Your task to perform on an android device: change your default location settings in chrome Image 0: 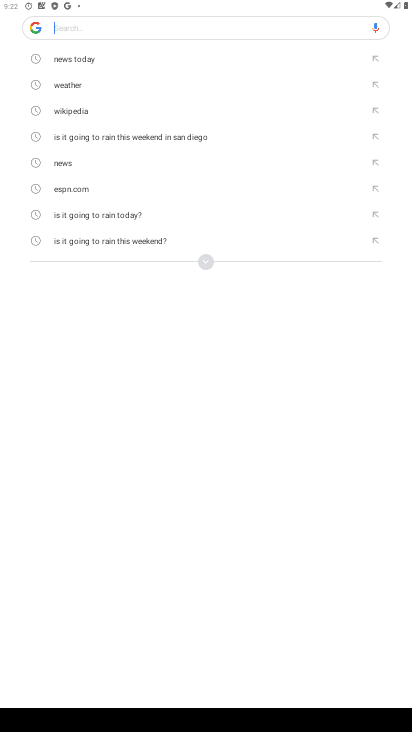
Step 0: press home button
Your task to perform on an android device: change your default location settings in chrome Image 1: 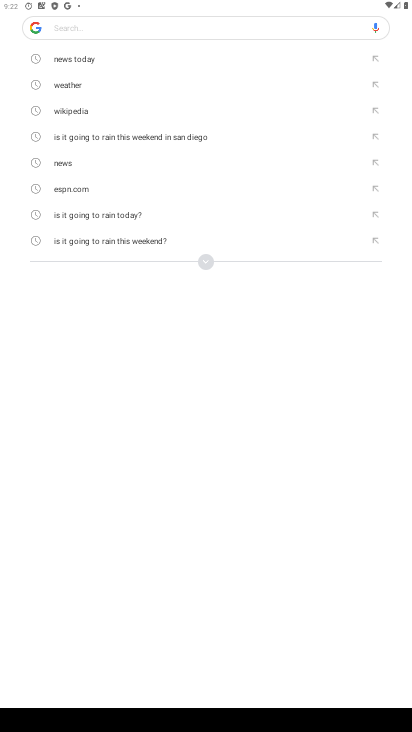
Step 1: press home button
Your task to perform on an android device: change your default location settings in chrome Image 2: 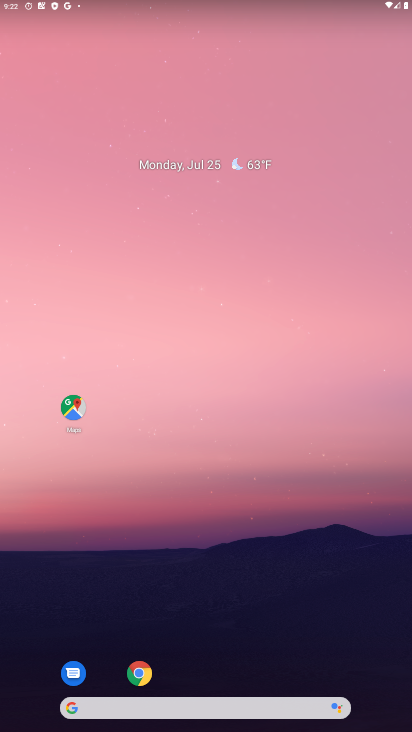
Step 2: click (141, 676)
Your task to perform on an android device: change your default location settings in chrome Image 3: 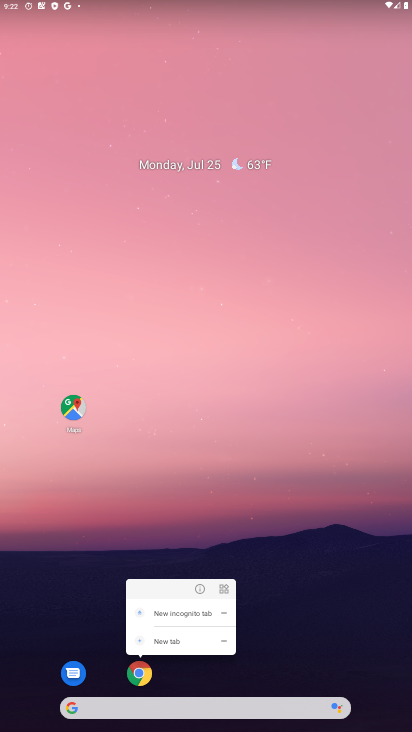
Step 3: click (196, 587)
Your task to perform on an android device: change your default location settings in chrome Image 4: 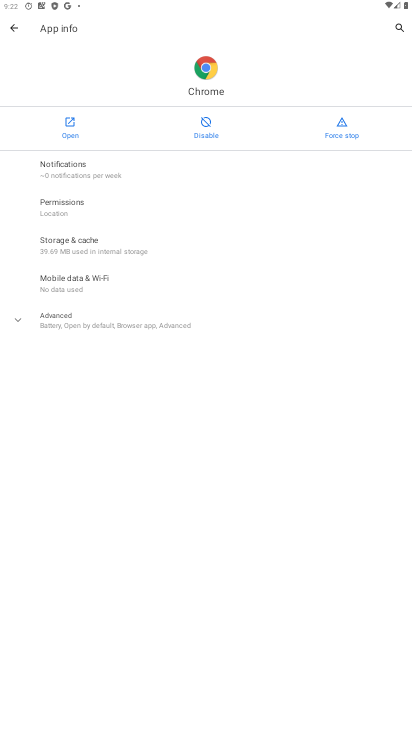
Step 4: click (71, 122)
Your task to perform on an android device: change your default location settings in chrome Image 5: 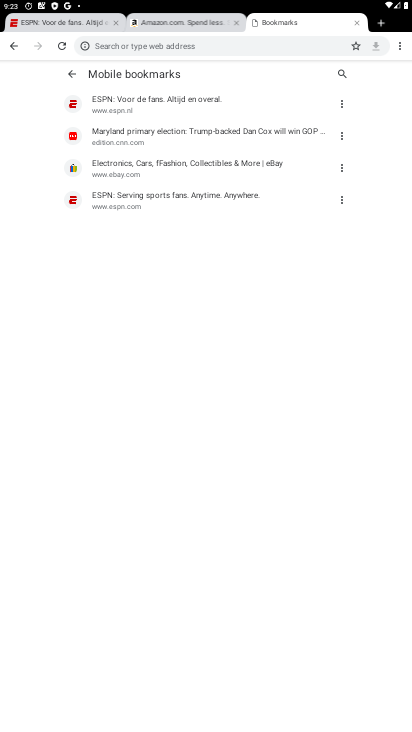
Step 5: click (176, 44)
Your task to perform on an android device: change your default location settings in chrome Image 6: 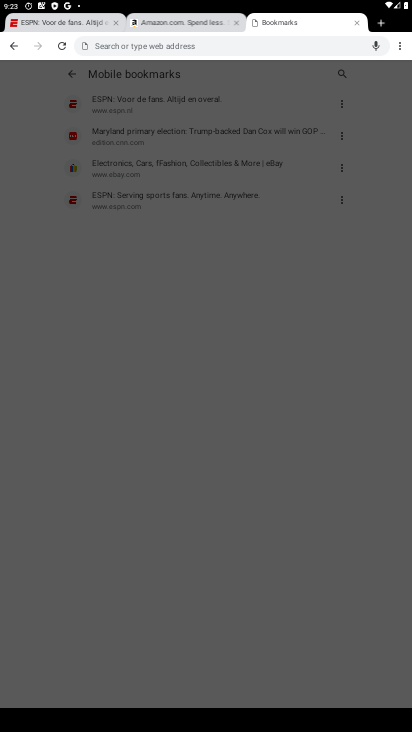
Step 6: click (152, 46)
Your task to perform on an android device: change your default location settings in chrome Image 7: 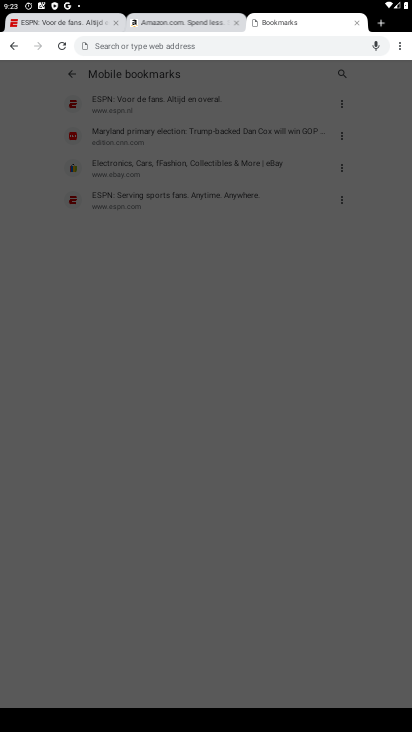
Step 7: drag from (403, 45) to (305, 214)
Your task to perform on an android device: change your default location settings in chrome Image 8: 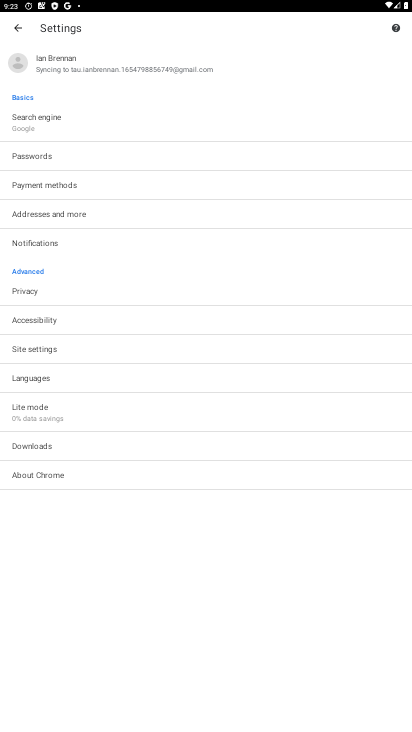
Step 8: click (69, 345)
Your task to perform on an android device: change your default location settings in chrome Image 9: 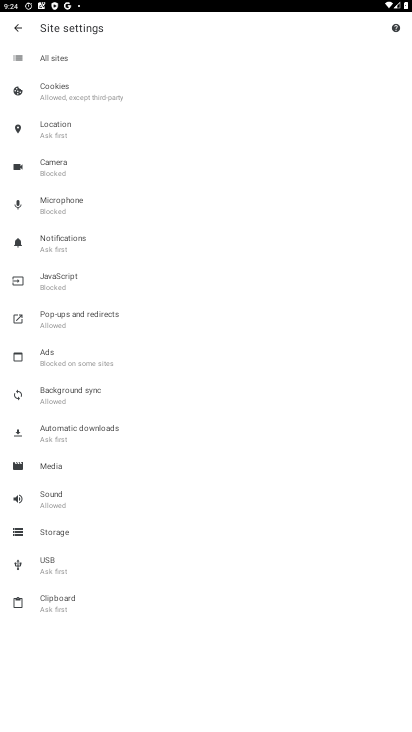
Step 9: click (128, 134)
Your task to perform on an android device: change your default location settings in chrome Image 10: 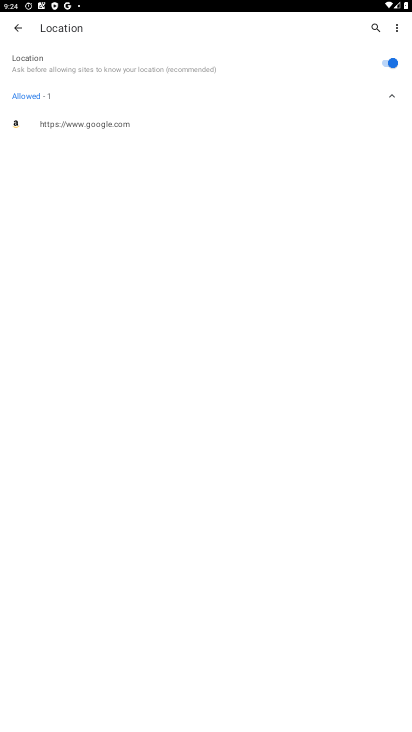
Step 10: drag from (176, 392) to (228, 67)
Your task to perform on an android device: change your default location settings in chrome Image 11: 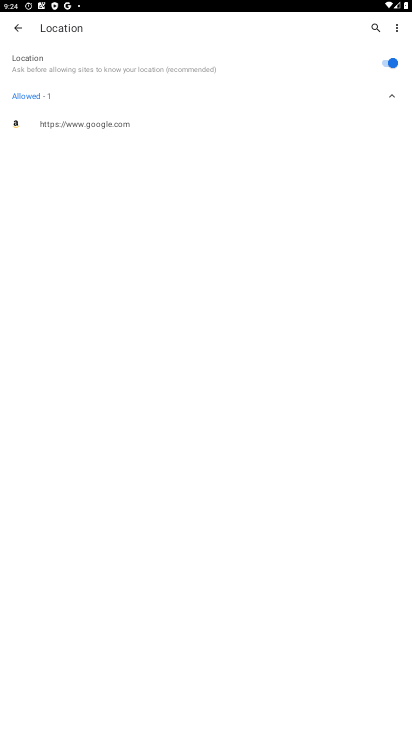
Step 11: drag from (189, 433) to (307, 44)
Your task to perform on an android device: change your default location settings in chrome Image 12: 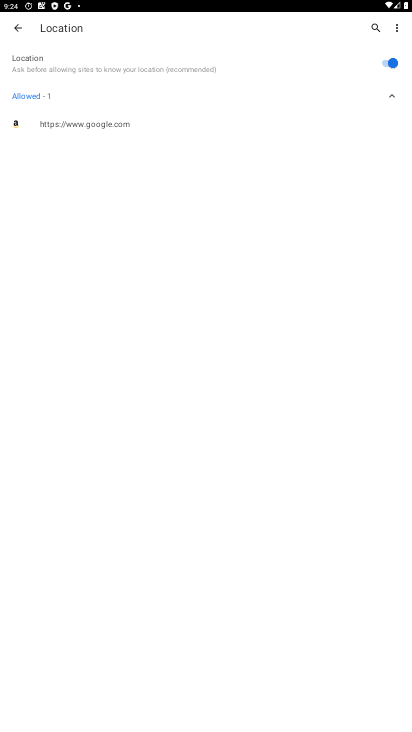
Step 12: drag from (199, 423) to (371, 54)
Your task to perform on an android device: change your default location settings in chrome Image 13: 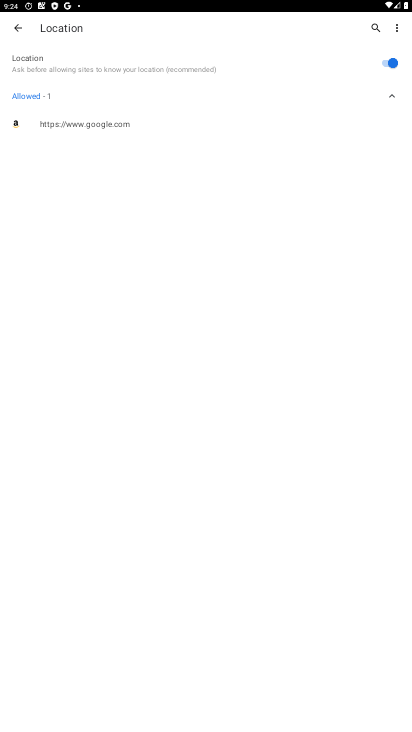
Step 13: click (391, 60)
Your task to perform on an android device: change your default location settings in chrome Image 14: 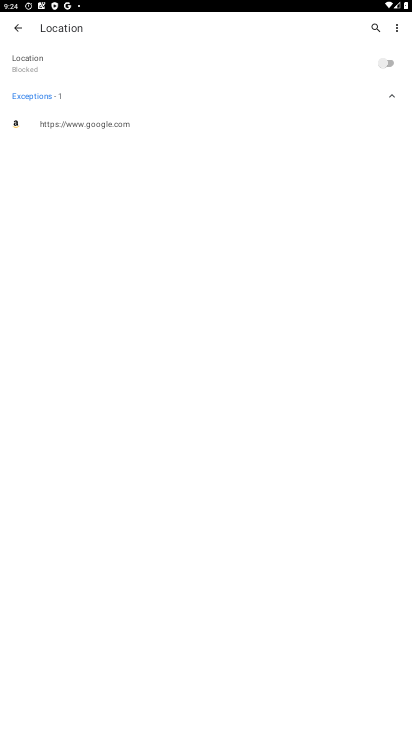
Step 14: task complete